Your task to perform on an android device: open a bookmark in the chrome app Image 0: 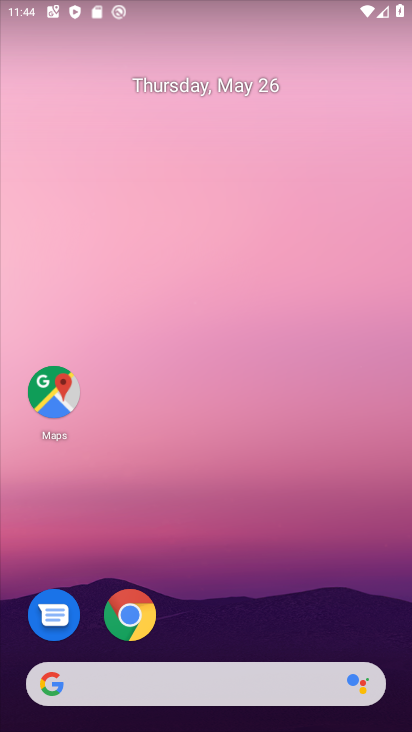
Step 0: click (137, 628)
Your task to perform on an android device: open a bookmark in the chrome app Image 1: 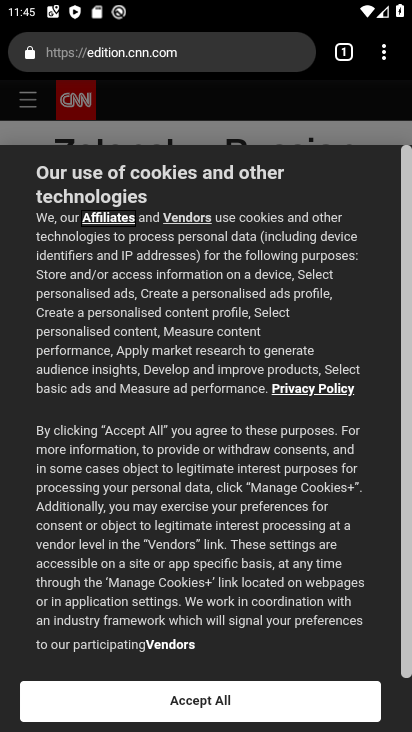
Step 1: click (387, 68)
Your task to perform on an android device: open a bookmark in the chrome app Image 2: 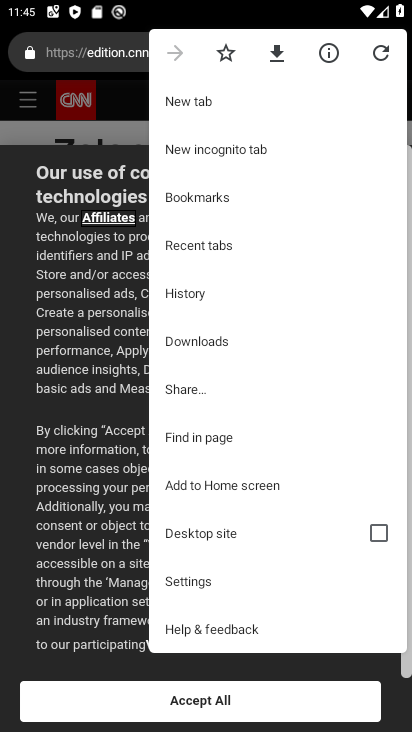
Step 2: click (244, 196)
Your task to perform on an android device: open a bookmark in the chrome app Image 3: 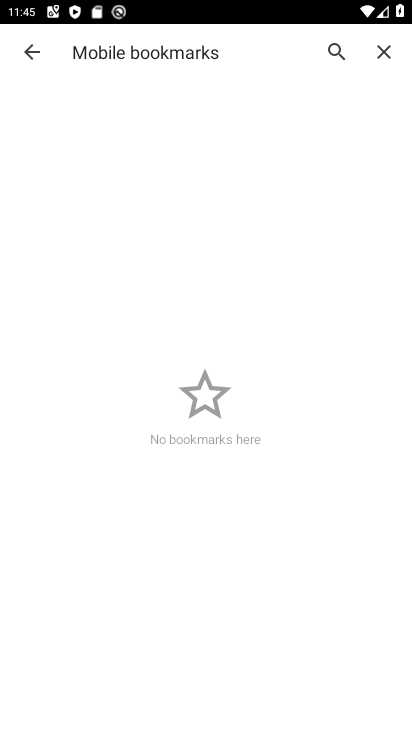
Step 3: task complete